Your task to perform on an android device: turn off priority inbox in the gmail app Image 0: 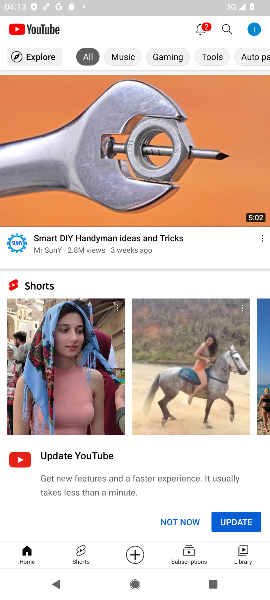
Step 0: press home button
Your task to perform on an android device: turn off priority inbox in the gmail app Image 1: 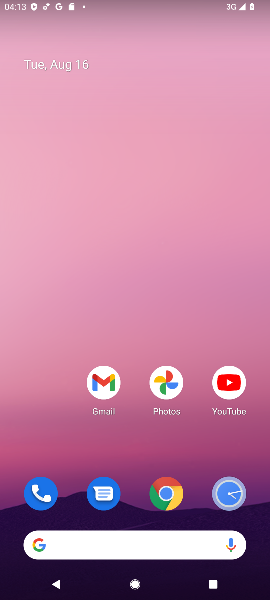
Step 1: drag from (68, 471) to (90, 149)
Your task to perform on an android device: turn off priority inbox in the gmail app Image 2: 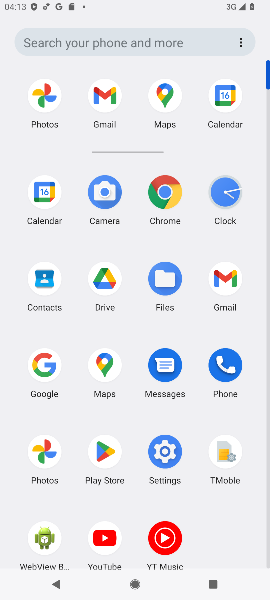
Step 2: click (223, 278)
Your task to perform on an android device: turn off priority inbox in the gmail app Image 3: 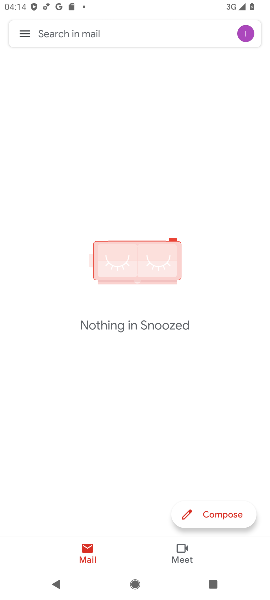
Step 3: click (23, 30)
Your task to perform on an android device: turn off priority inbox in the gmail app Image 4: 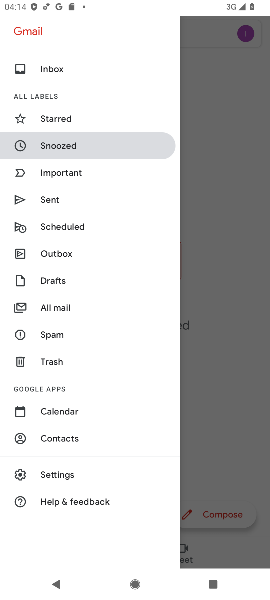
Step 4: drag from (130, 372) to (121, 213)
Your task to perform on an android device: turn off priority inbox in the gmail app Image 5: 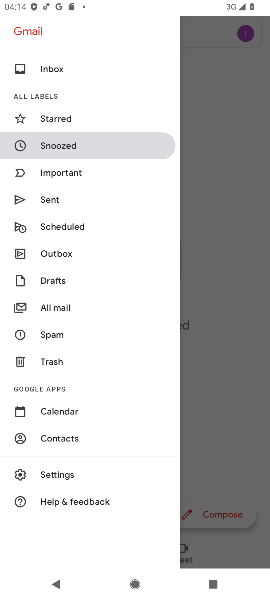
Step 5: click (70, 477)
Your task to perform on an android device: turn off priority inbox in the gmail app Image 6: 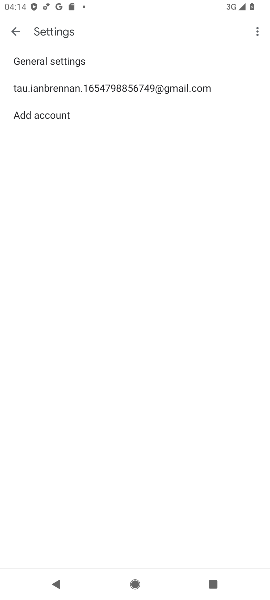
Step 6: click (157, 85)
Your task to perform on an android device: turn off priority inbox in the gmail app Image 7: 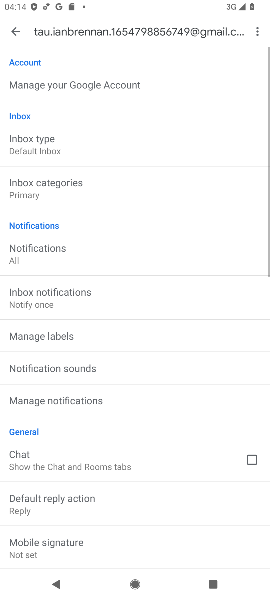
Step 7: task complete